Your task to perform on an android device: delete location history Image 0: 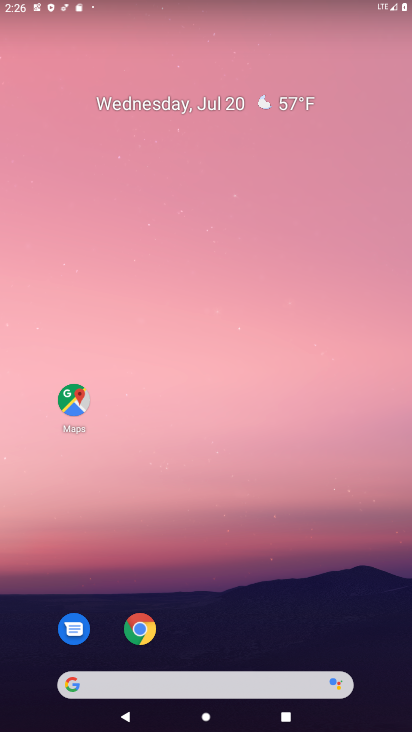
Step 0: drag from (213, 678) to (231, 76)
Your task to perform on an android device: delete location history Image 1: 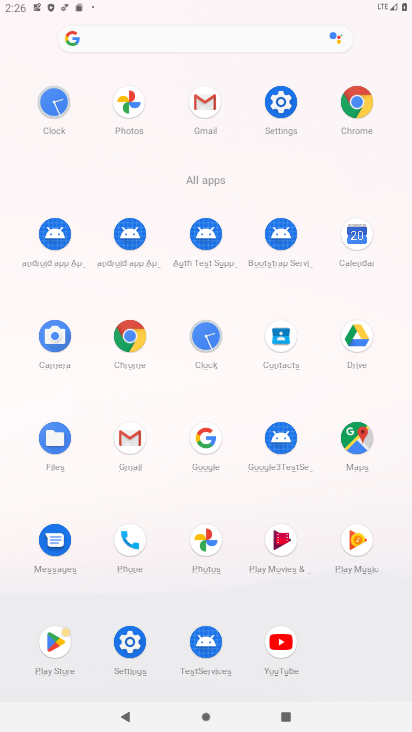
Step 1: click (343, 438)
Your task to perform on an android device: delete location history Image 2: 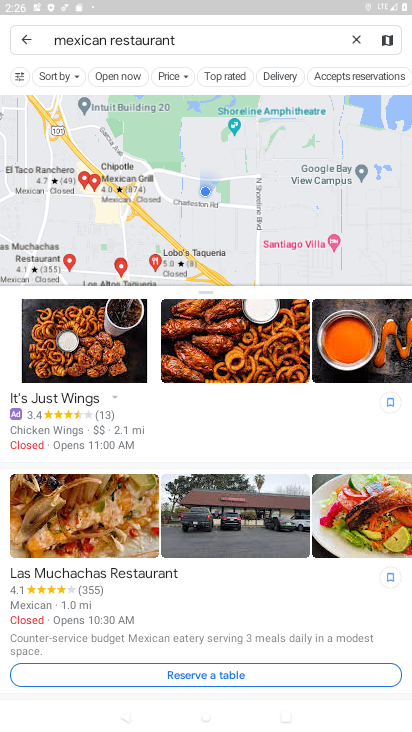
Step 2: click (26, 33)
Your task to perform on an android device: delete location history Image 3: 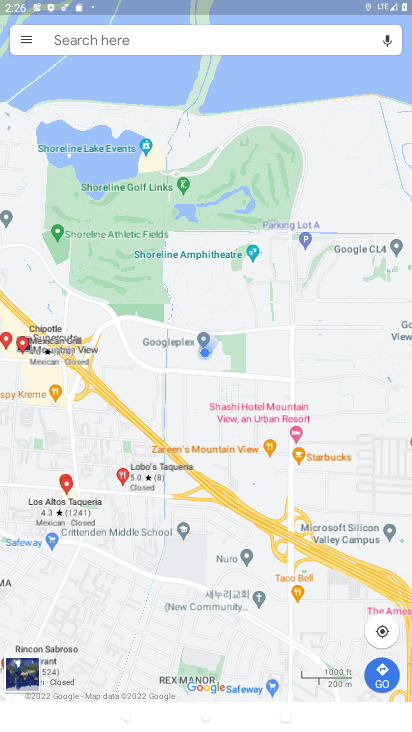
Step 3: click (27, 46)
Your task to perform on an android device: delete location history Image 4: 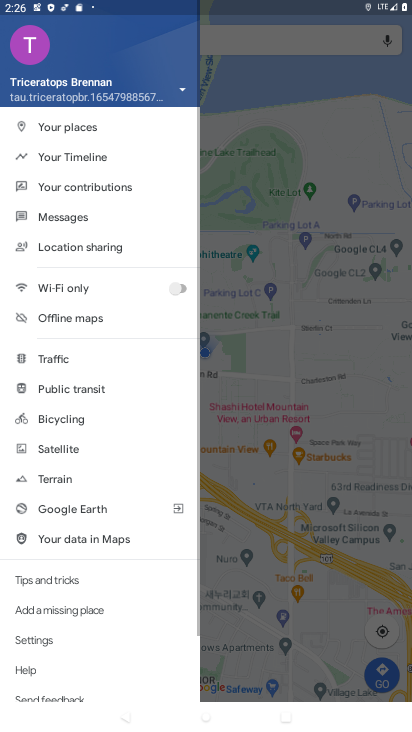
Step 4: click (93, 157)
Your task to perform on an android device: delete location history Image 5: 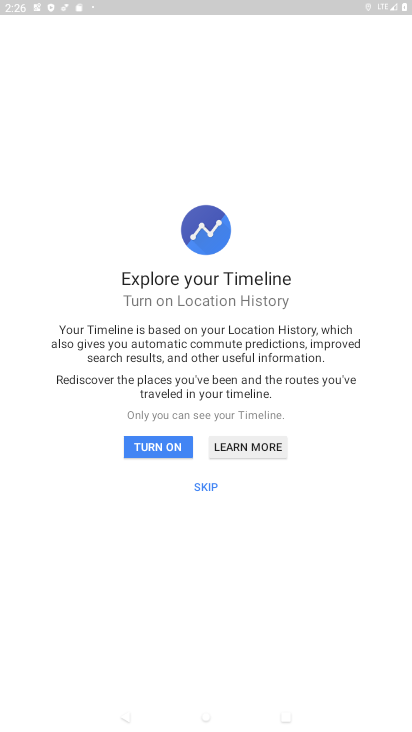
Step 5: click (165, 447)
Your task to perform on an android device: delete location history Image 6: 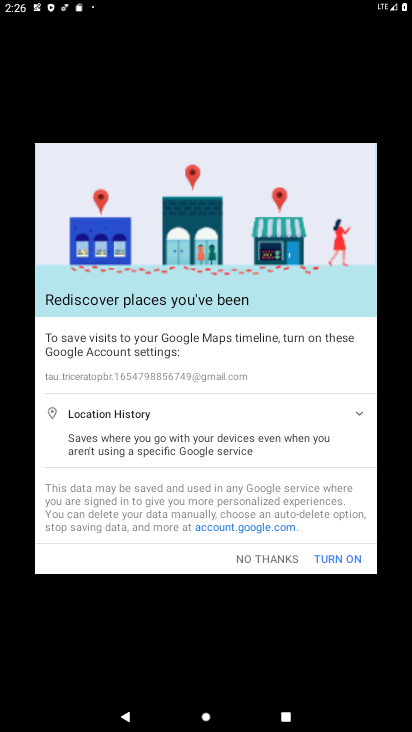
Step 6: click (283, 559)
Your task to perform on an android device: delete location history Image 7: 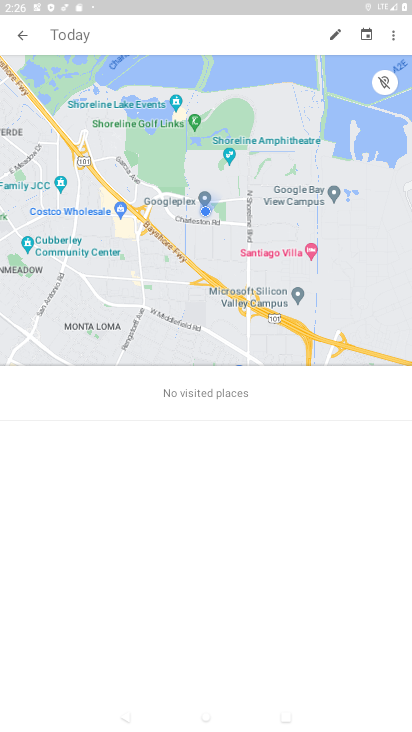
Step 7: click (393, 34)
Your task to perform on an android device: delete location history Image 8: 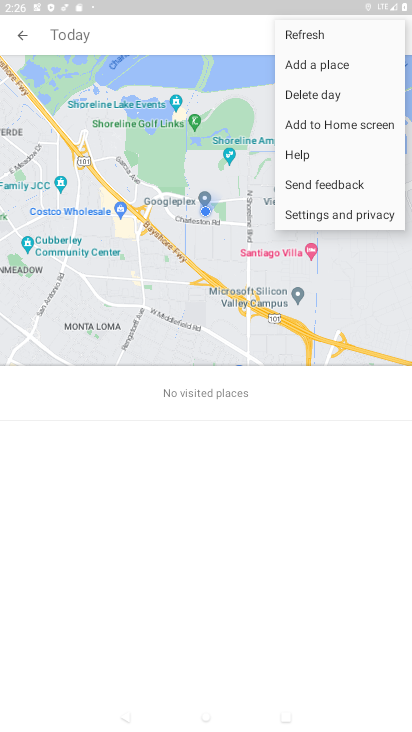
Step 8: click (323, 209)
Your task to perform on an android device: delete location history Image 9: 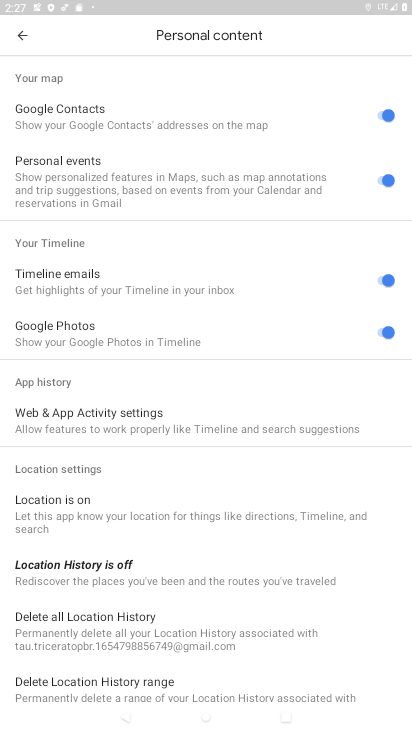
Step 9: click (170, 629)
Your task to perform on an android device: delete location history Image 10: 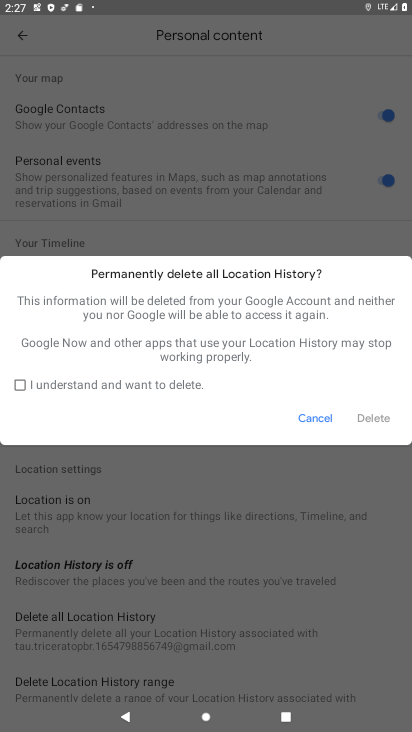
Step 10: click (135, 387)
Your task to perform on an android device: delete location history Image 11: 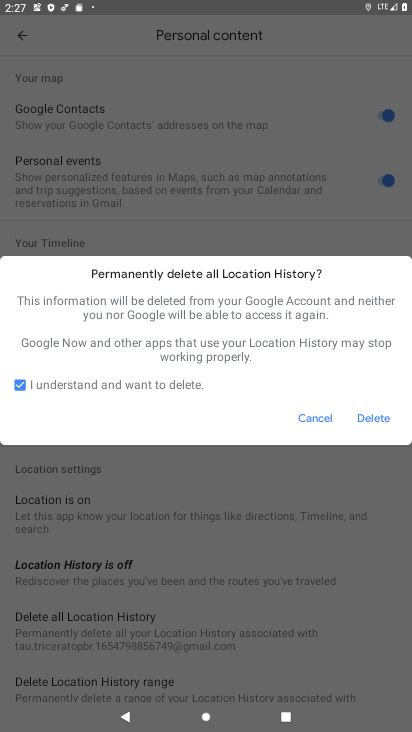
Step 11: click (368, 414)
Your task to perform on an android device: delete location history Image 12: 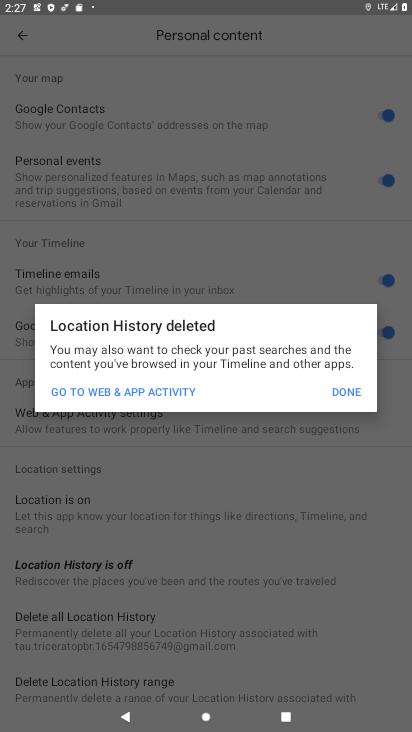
Step 12: click (342, 391)
Your task to perform on an android device: delete location history Image 13: 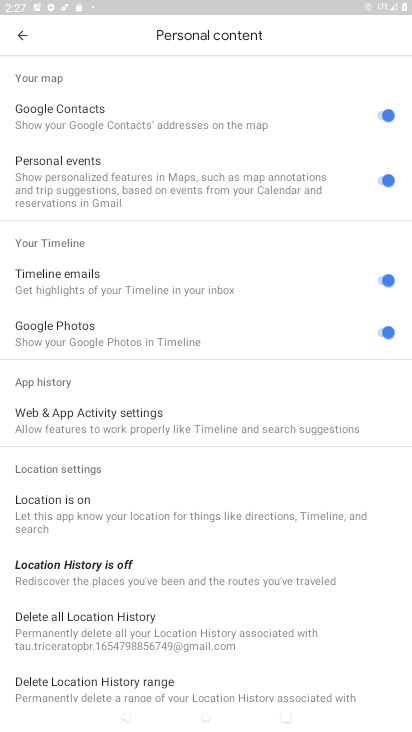
Step 13: task complete